Your task to perform on an android device: Check the weather Image 0: 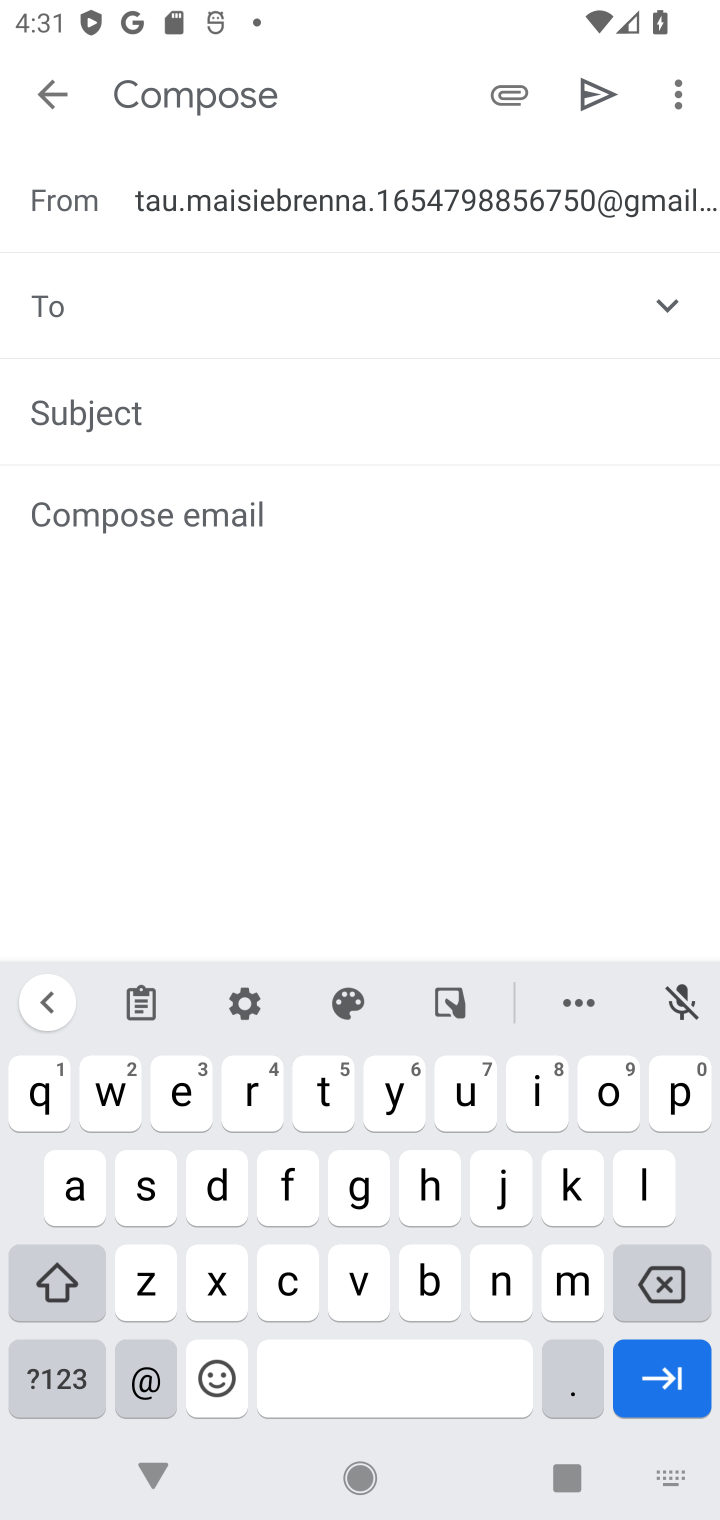
Step 0: press home button
Your task to perform on an android device: Check the weather Image 1: 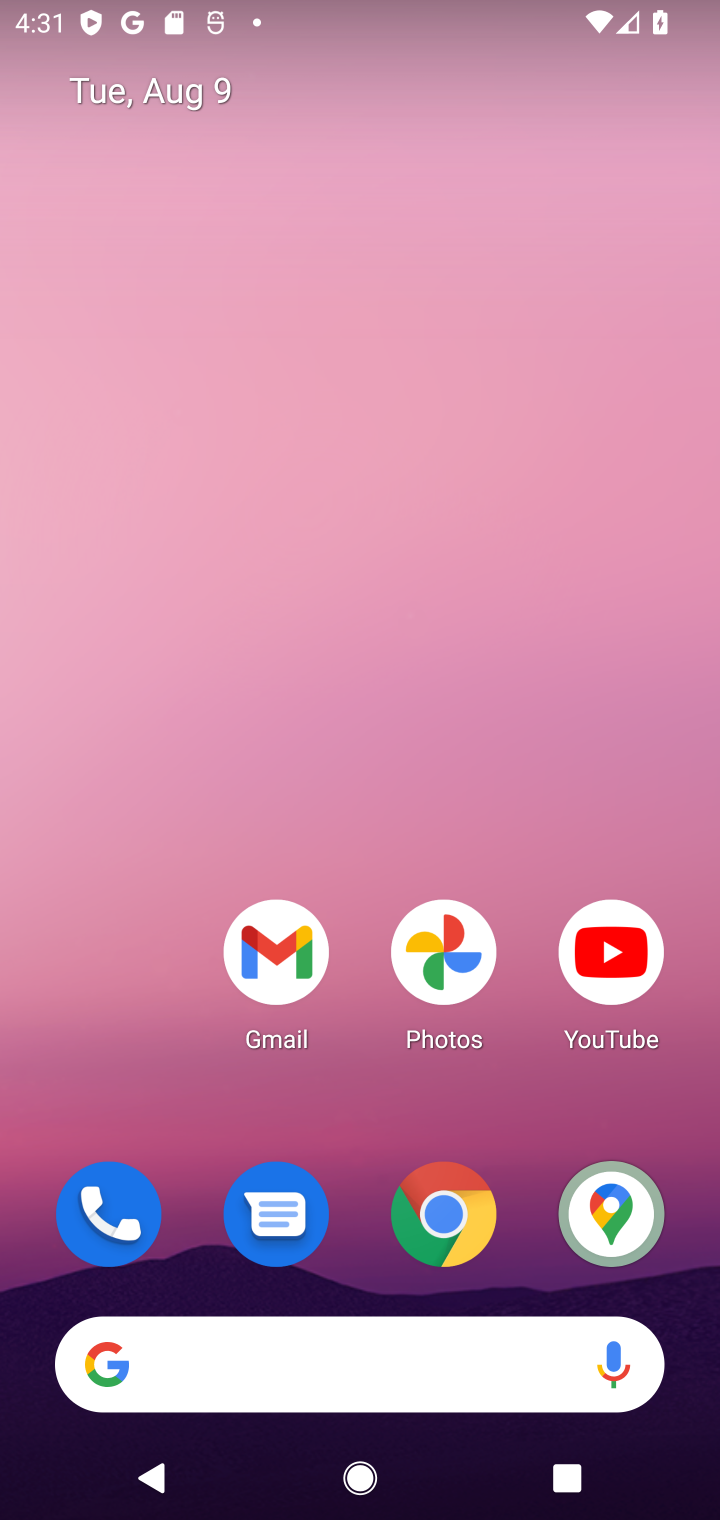
Step 1: drag from (344, 1066) to (233, 444)
Your task to perform on an android device: Check the weather Image 2: 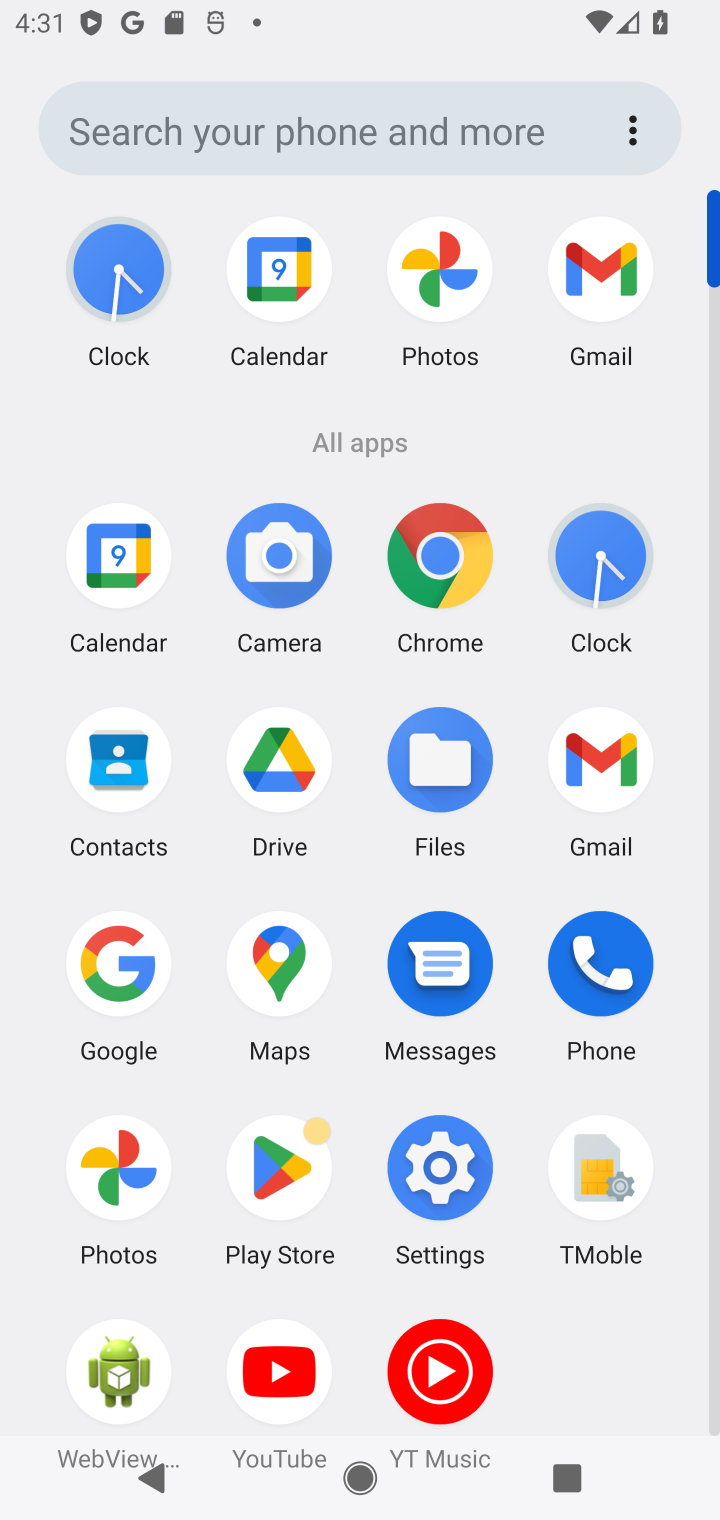
Step 2: click (163, 133)
Your task to perform on an android device: Check the weather Image 3: 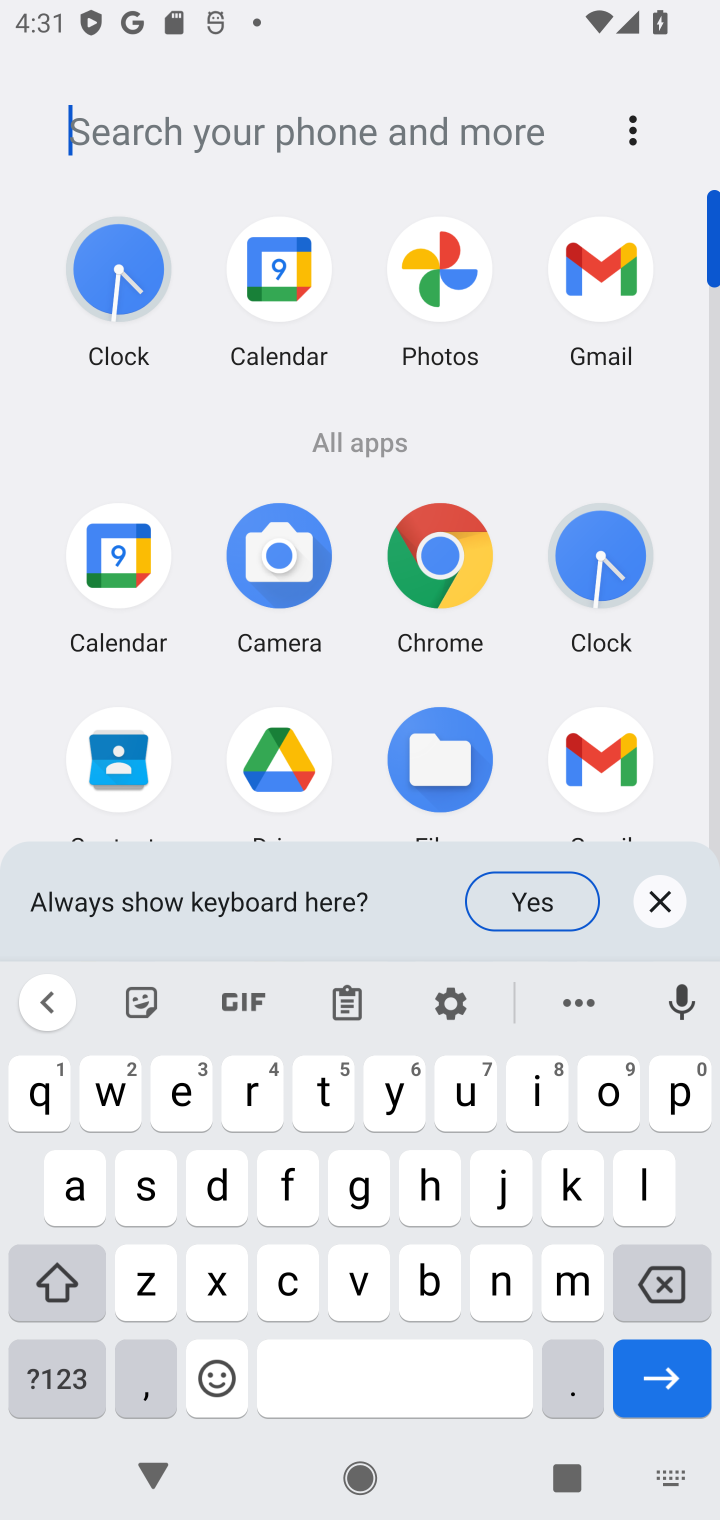
Step 3: click (111, 1105)
Your task to perform on an android device: Check the weather Image 4: 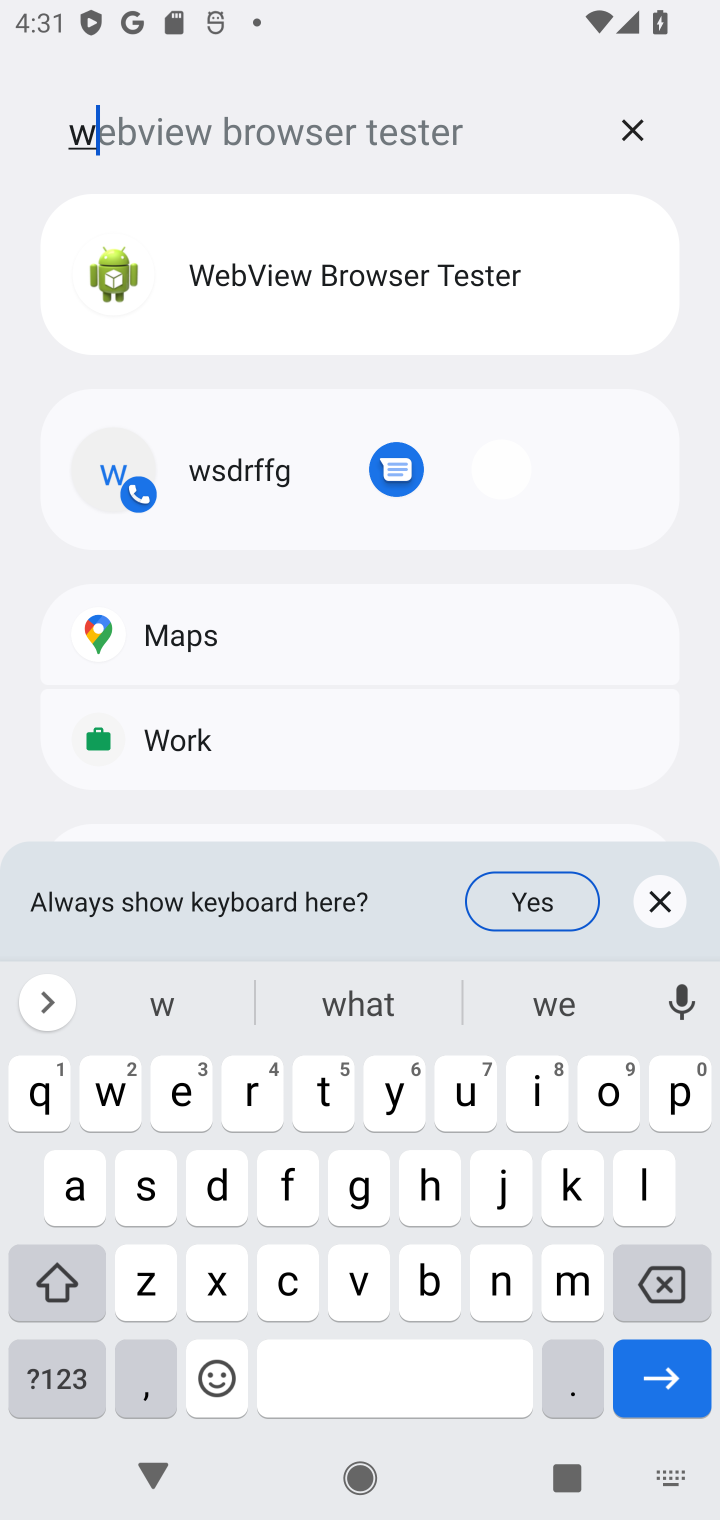
Step 4: click (625, 124)
Your task to perform on an android device: Check the weather Image 5: 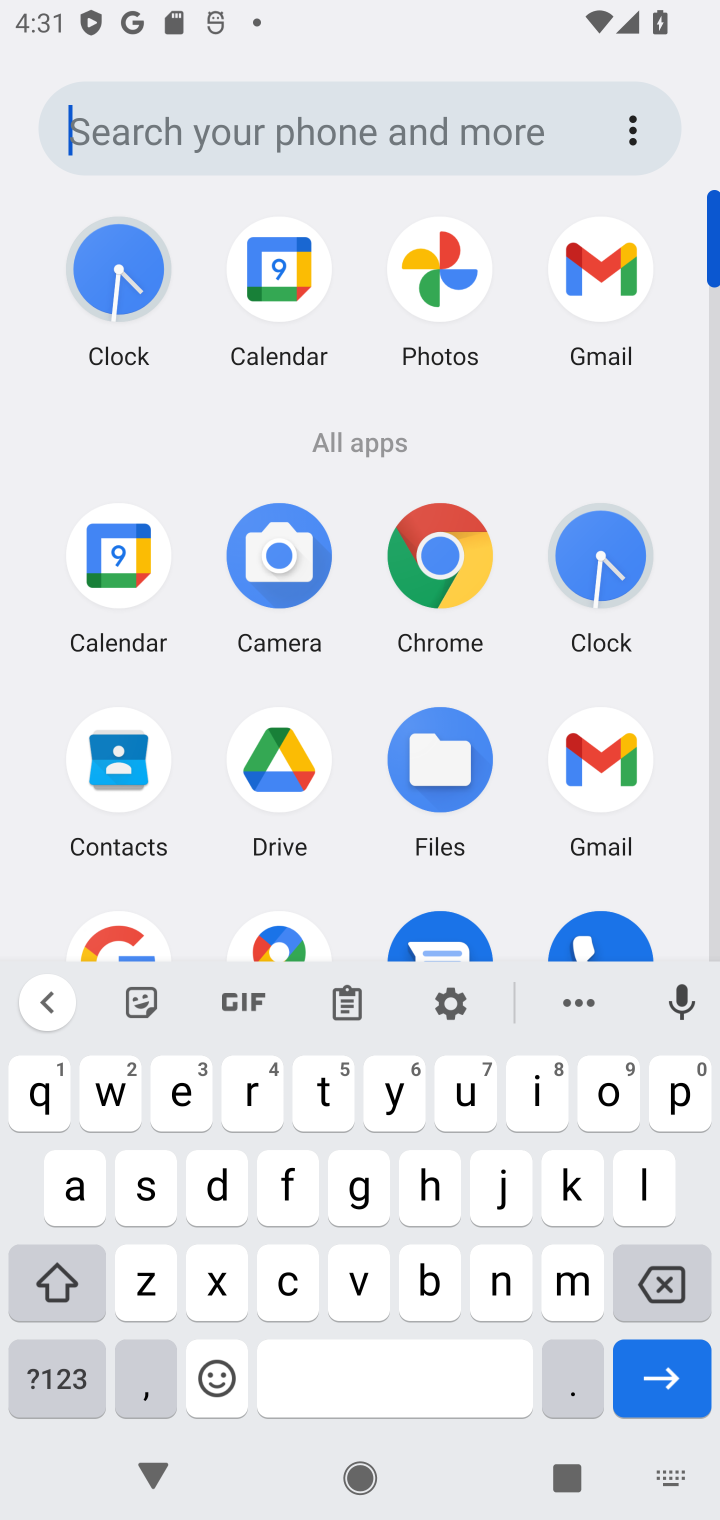
Step 5: press home button
Your task to perform on an android device: Check the weather Image 6: 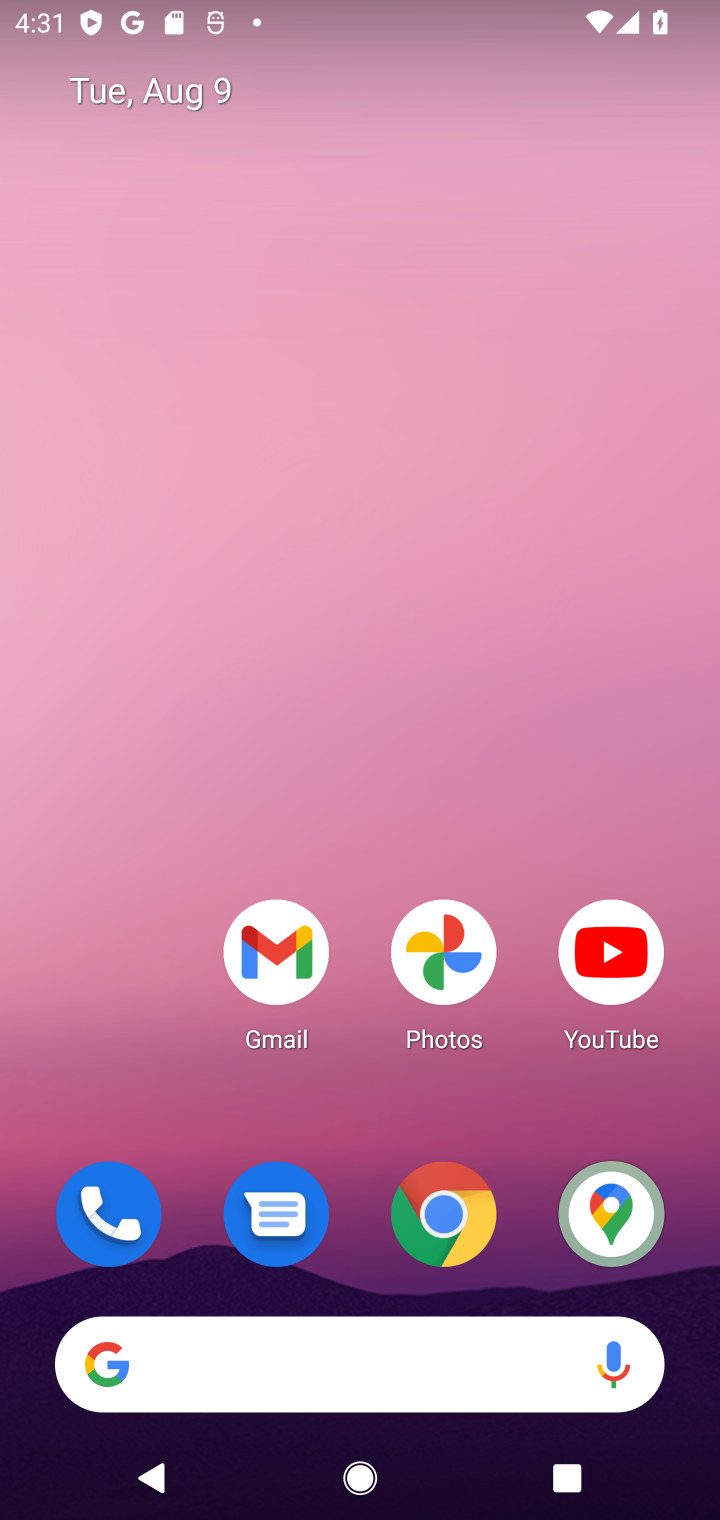
Step 6: click (220, 1364)
Your task to perform on an android device: Check the weather Image 7: 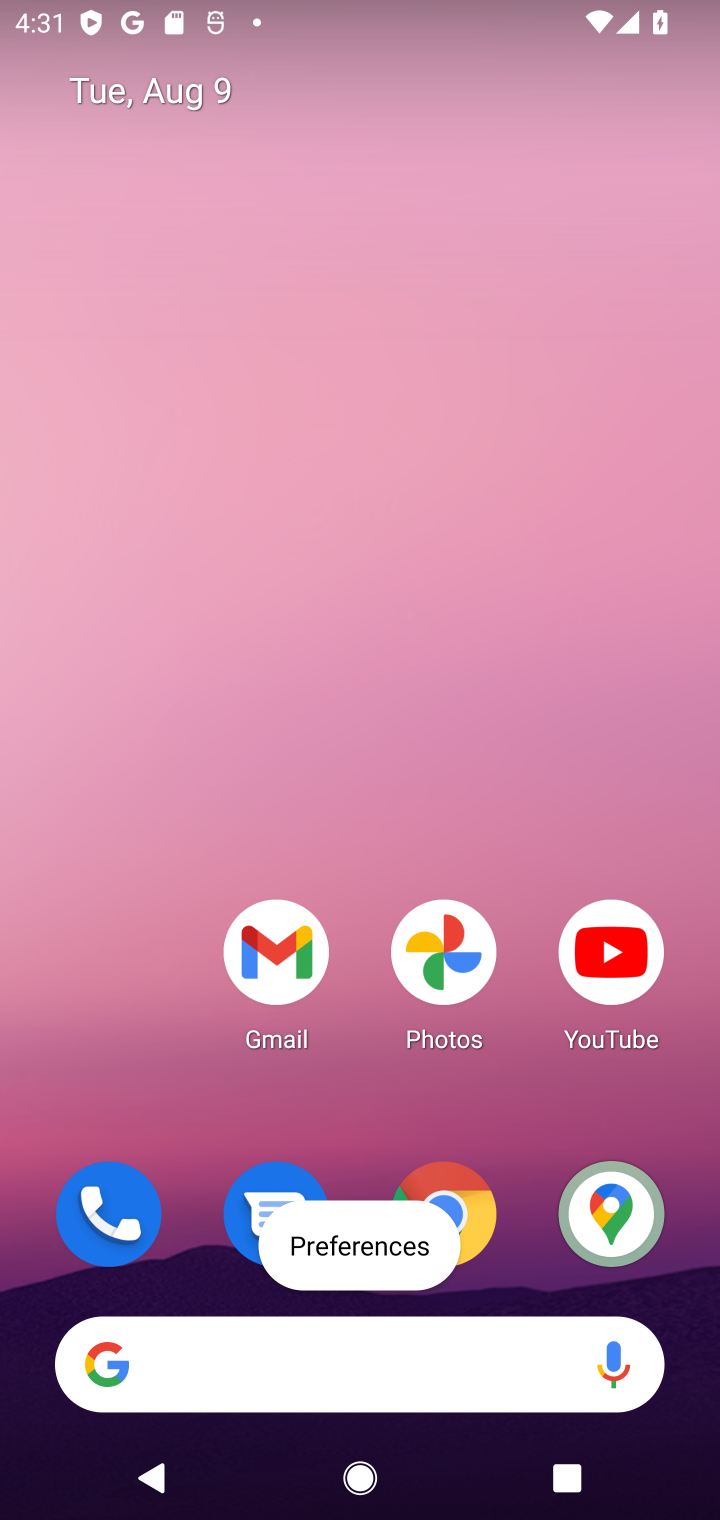
Step 7: click (182, 1371)
Your task to perform on an android device: Check the weather Image 8: 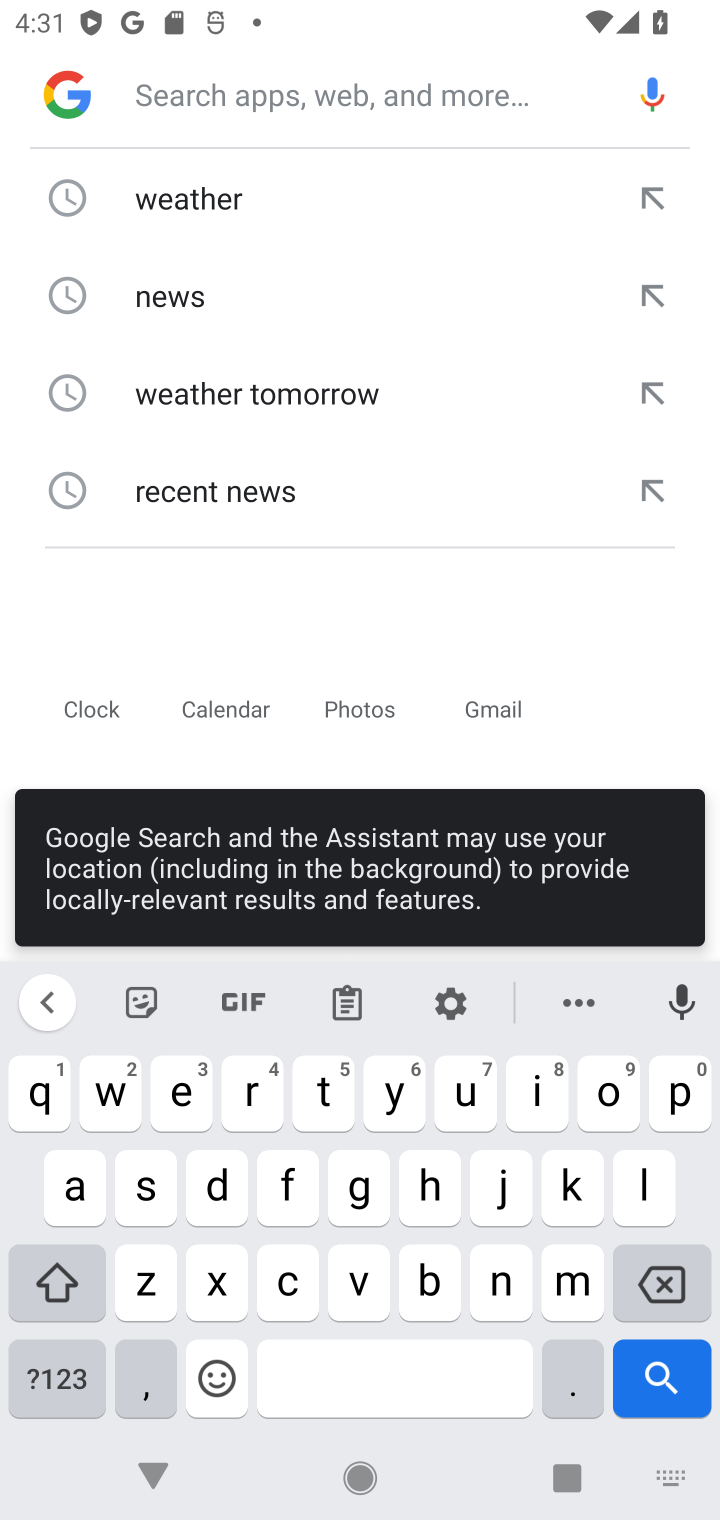
Step 8: click (189, 184)
Your task to perform on an android device: Check the weather Image 9: 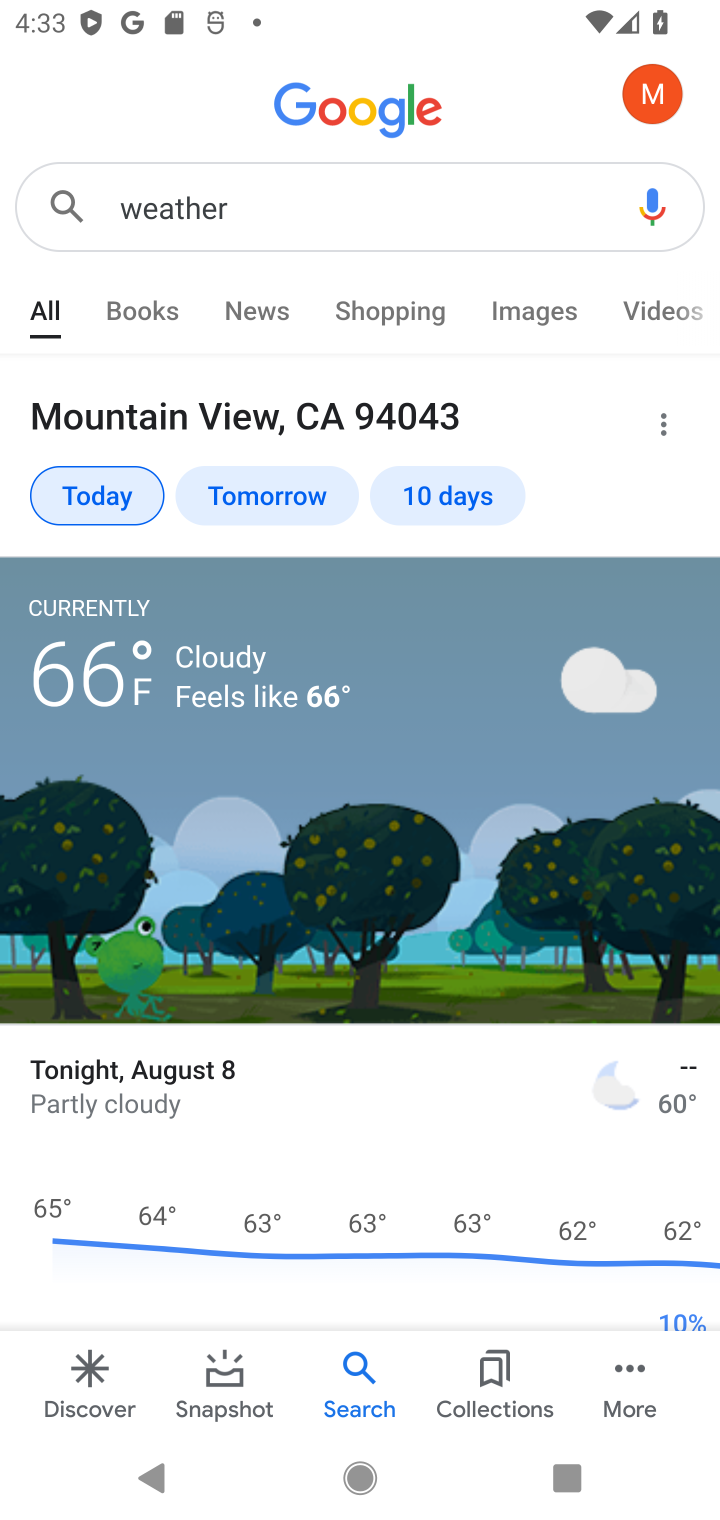
Step 9: task complete